Your task to perform on an android device: Is it going to rain tomorrow? Image 0: 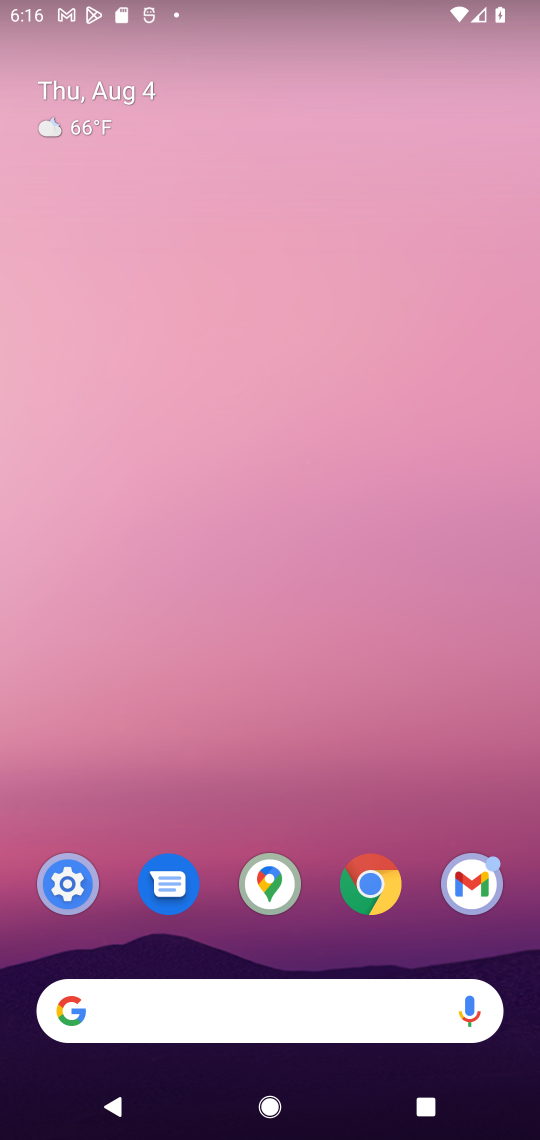
Step 0: click (247, 1012)
Your task to perform on an android device: Is it going to rain tomorrow? Image 1: 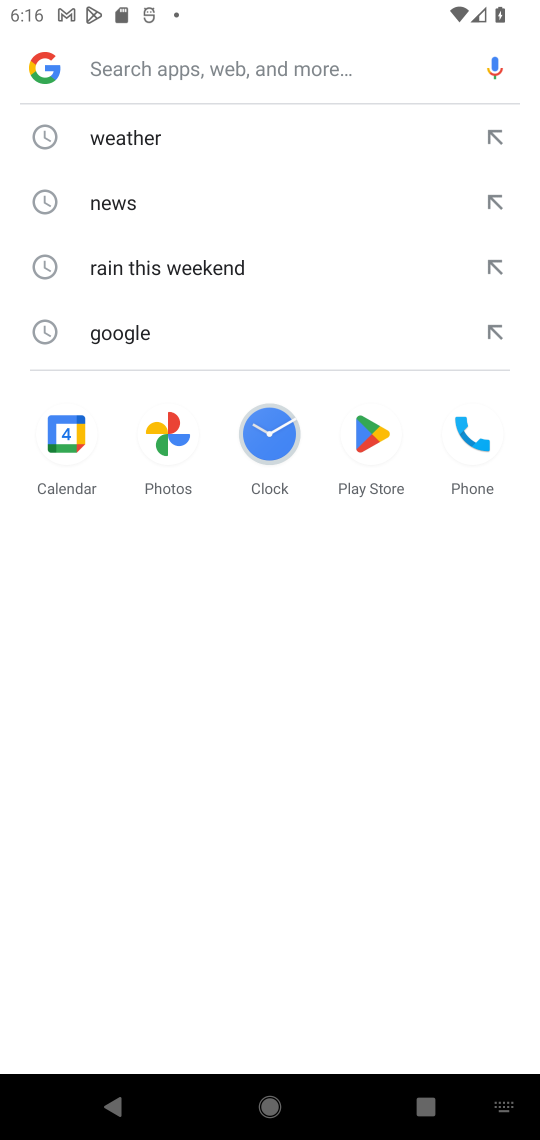
Step 1: type "rain"
Your task to perform on an android device: Is it going to rain tomorrow? Image 2: 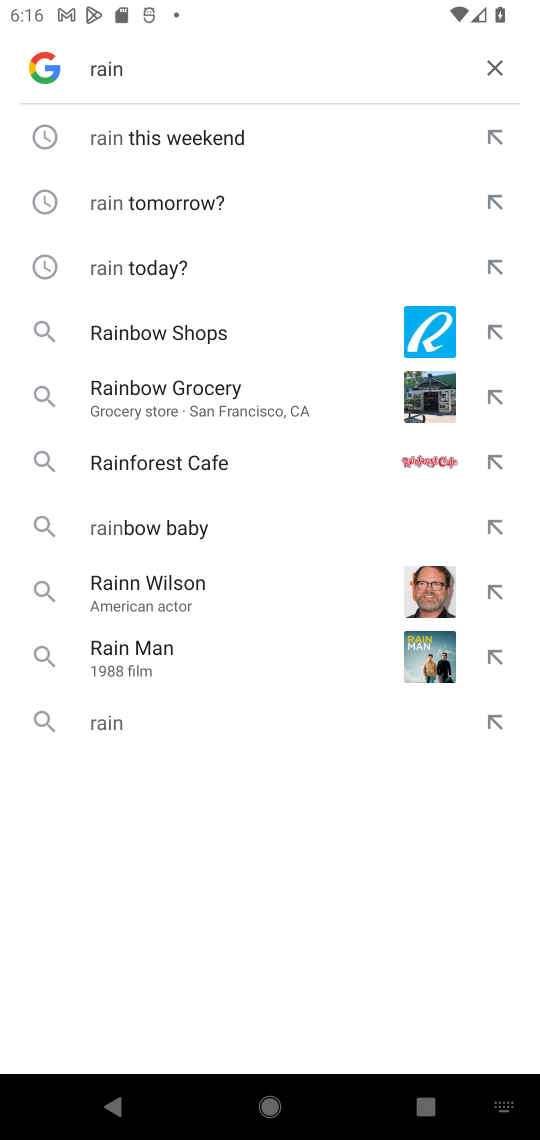
Step 2: click (199, 221)
Your task to perform on an android device: Is it going to rain tomorrow? Image 3: 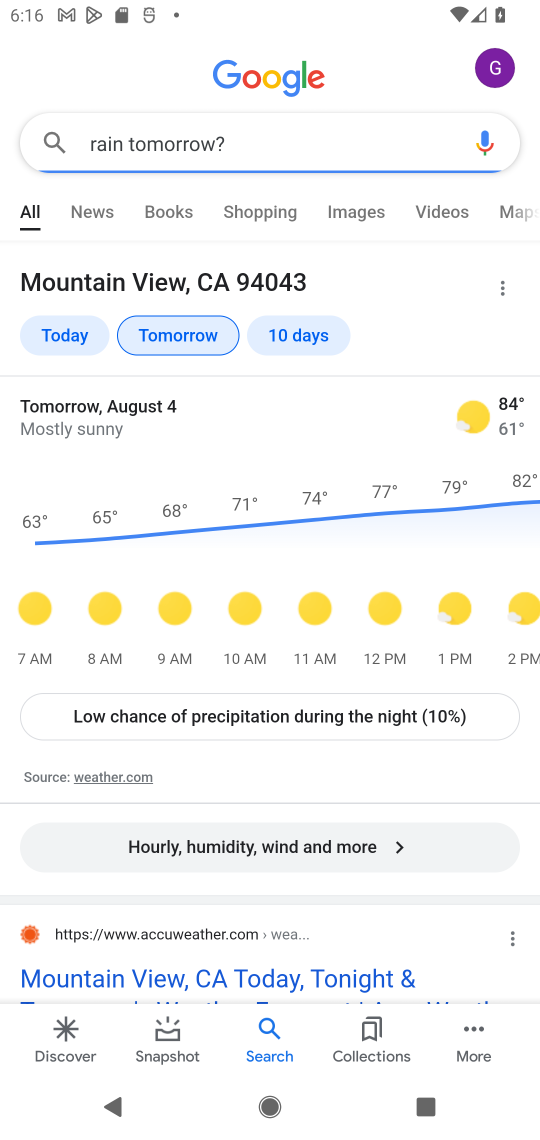
Step 3: task complete